Your task to perform on an android device: Open Google Maps and go to "Timeline" Image 0: 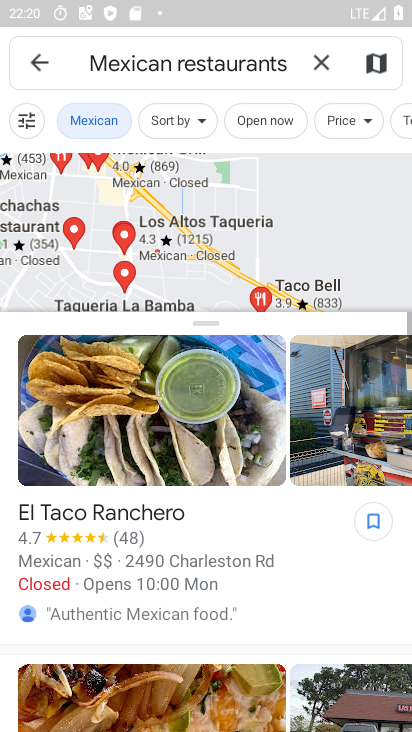
Step 0: drag from (266, 535) to (370, 9)
Your task to perform on an android device: Open Google Maps and go to "Timeline" Image 1: 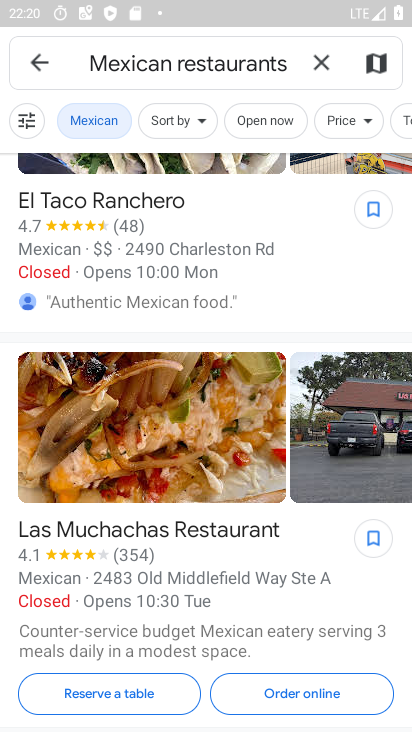
Step 1: click (40, 51)
Your task to perform on an android device: Open Google Maps and go to "Timeline" Image 2: 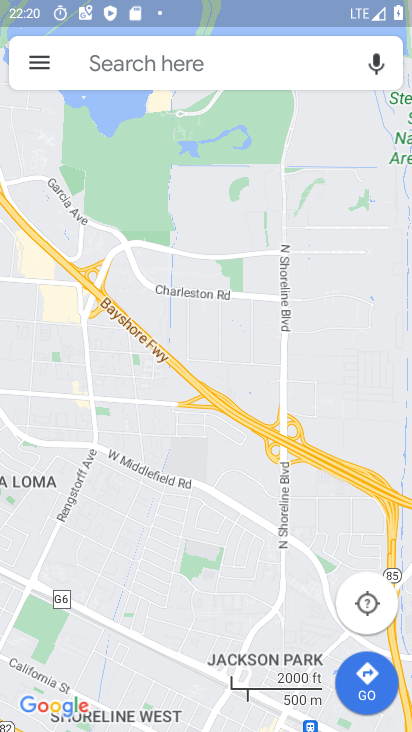
Step 2: click (40, 51)
Your task to perform on an android device: Open Google Maps and go to "Timeline" Image 3: 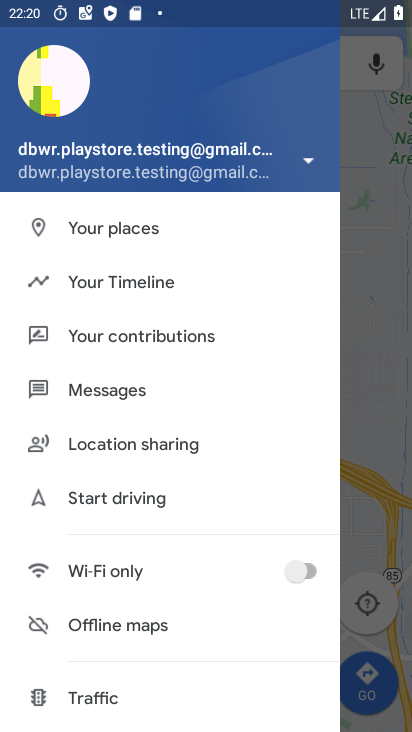
Step 3: click (139, 286)
Your task to perform on an android device: Open Google Maps and go to "Timeline" Image 4: 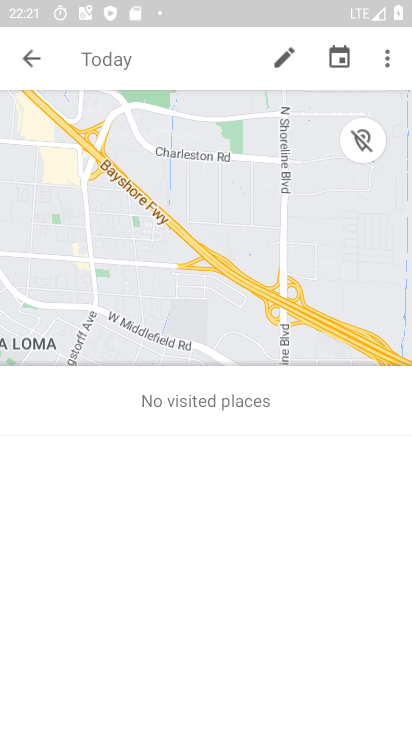
Step 4: task complete